Your task to perform on an android device: Do I have any events this weekend? Image 0: 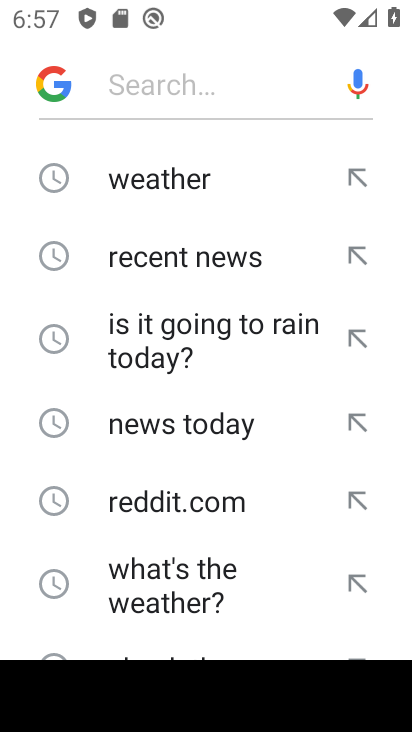
Step 0: press back button
Your task to perform on an android device: Do I have any events this weekend? Image 1: 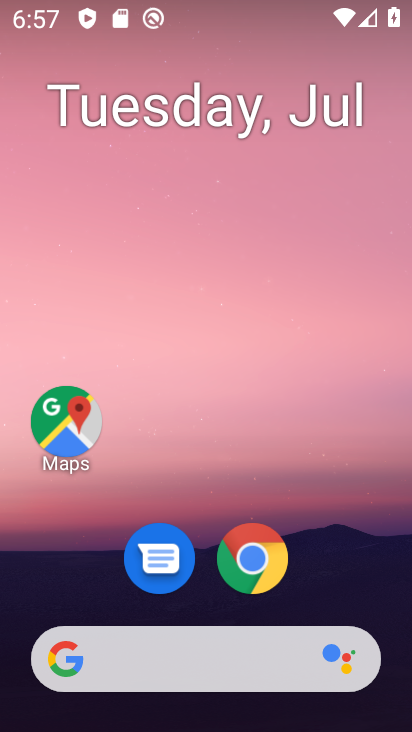
Step 1: drag from (96, 582) to (208, 12)
Your task to perform on an android device: Do I have any events this weekend? Image 2: 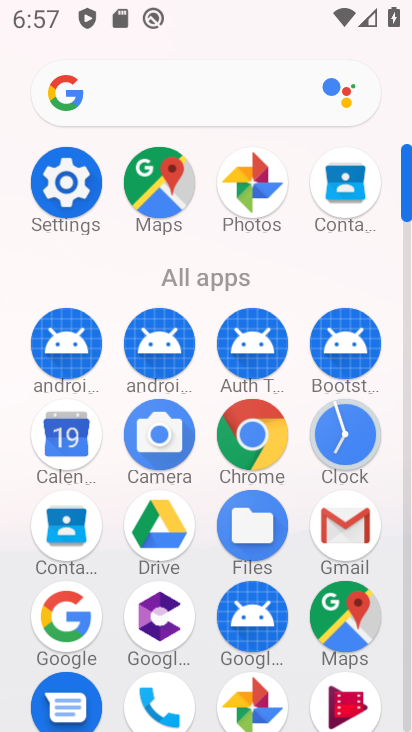
Step 2: click (77, 435)
Your task to perform on an android device: Do I have any events this weekend? Image 3: 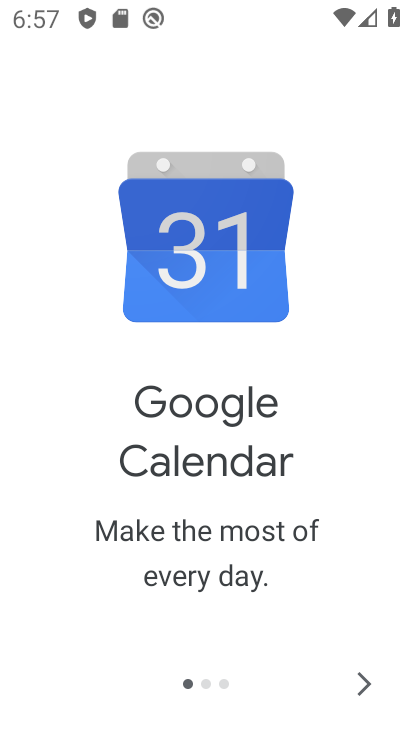
Step 3: click (367, 685)
Your task to perform on an android device: Do I have any events this weekend? Image 4: 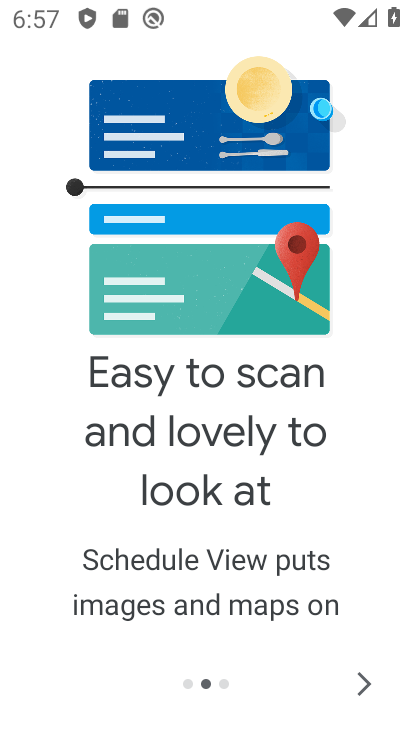
Step 4: click (363, 680)
Your task to perform on an android device: Do I have any events this weekend? Image 5: 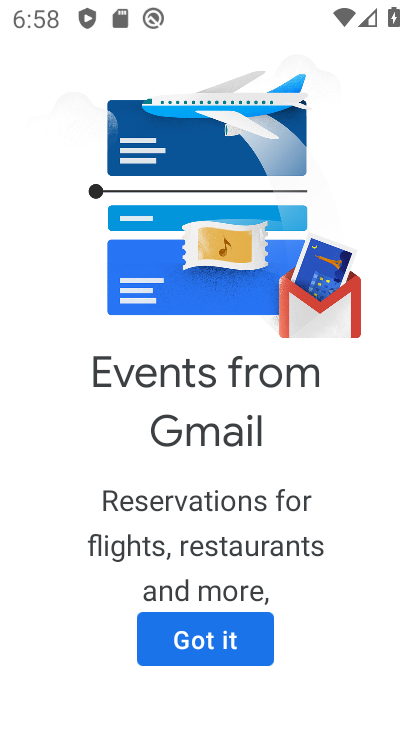
Step 5: click (178, 636)
Your task to perform on an android device: Do I have any events this weekend? Image 6: 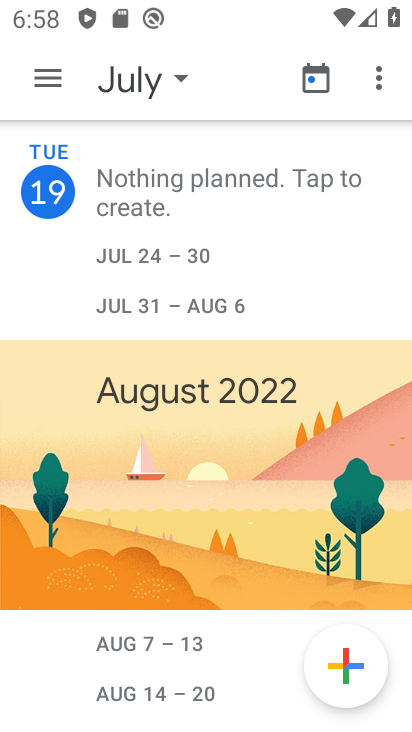
Step 6: click (170, 82)
Your task to perform on an android device: Do I have any events this weekend? Image 7: 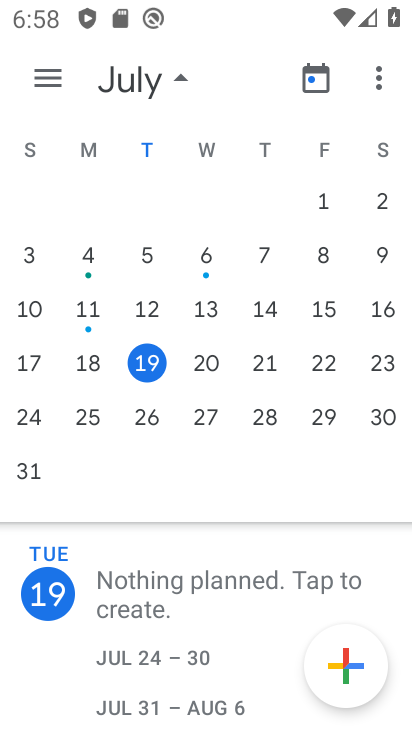
Step 7: click (387, 368)
Your task to perform on an android device: Do I have any events this weekend? Image 8: 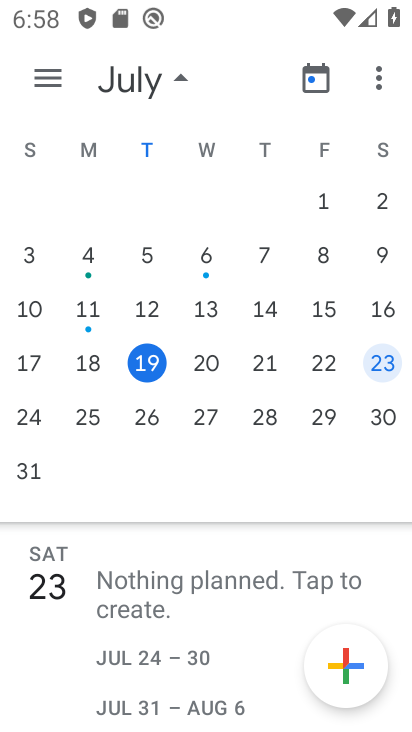
Step 8: task complete